Your task to perform on an android device: turn off translation in the chrome app Image 0: 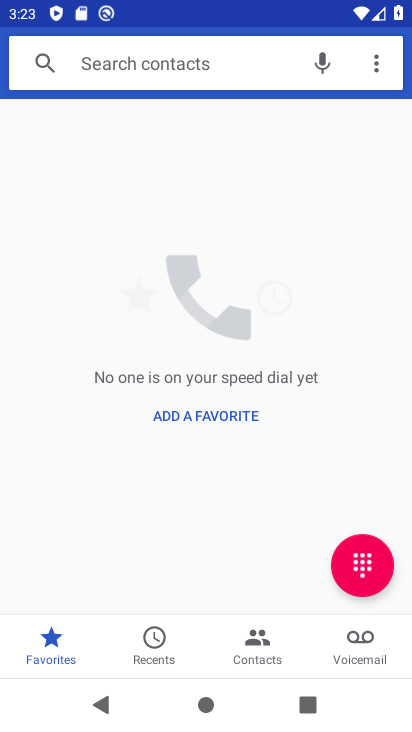
Step 0: press home button
Your task to perform on an android device: turn off translation in the chrome app Image 1: 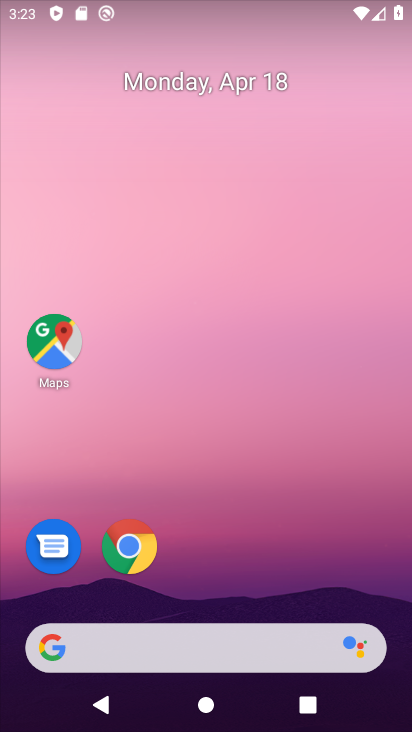
Step 1: click (139, 540)
Your task to perform on an android device: turn off translation in the chrome app Image 2: 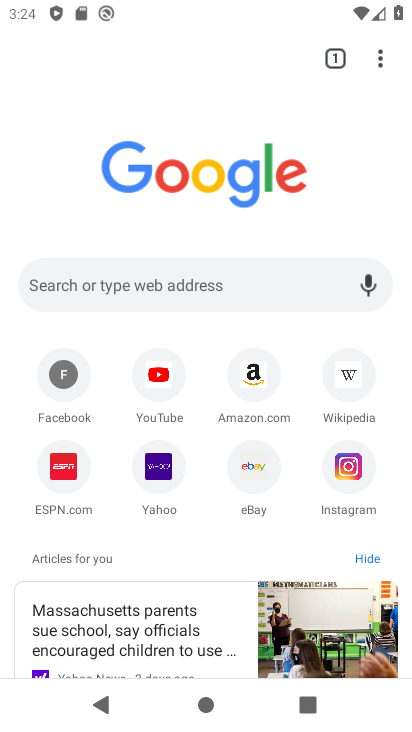
Step 2: click (376, 52)
Your task to perform on an android device: turn off translation in the chrome app Image 3: 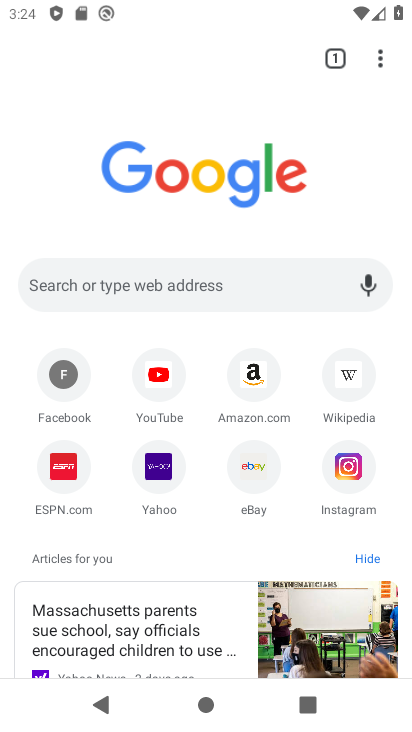
Step 3: drag from (379, 53) to (176, 494)
Your task to perform on an android device: turn off translation in the chrome app Image 4: 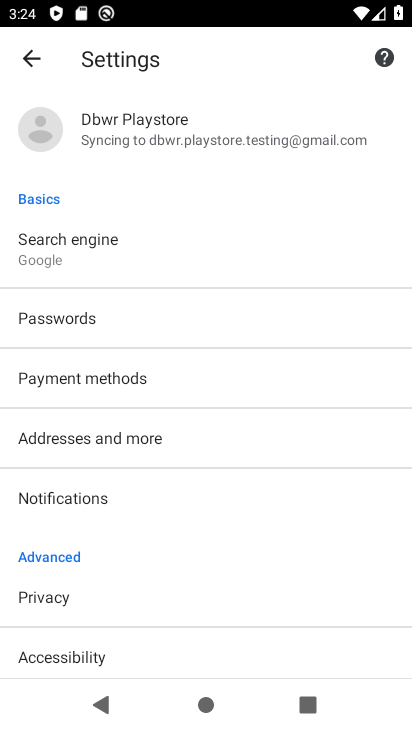
Step 4: drag from (170, 643) to (201, 263)
Your task to perform on an android device: turn off translation in the chrome app Image 5: 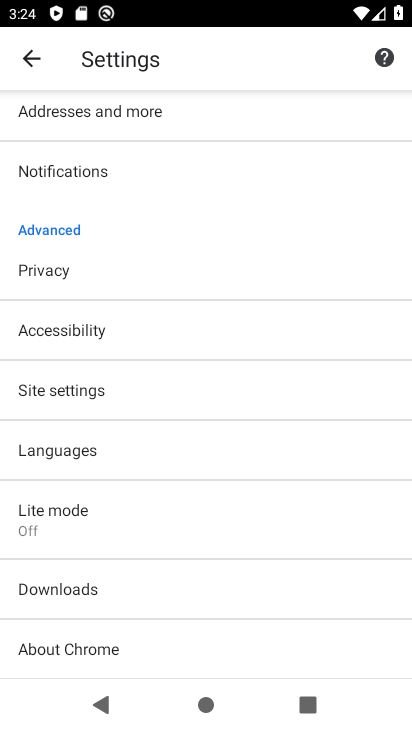
Step 5: click (87, 452)
Your task to perform on an android device: turn off translation in the chrome app Image 6: 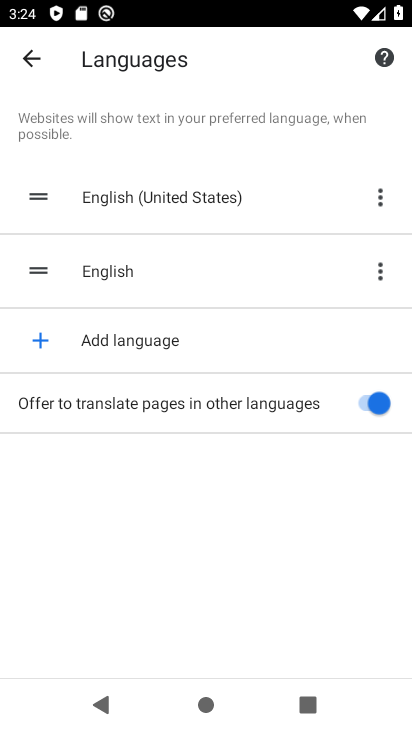
Step 6: click (337, 397)
Your task to perform on an android device: turn off translation in the chrome app Image 7: 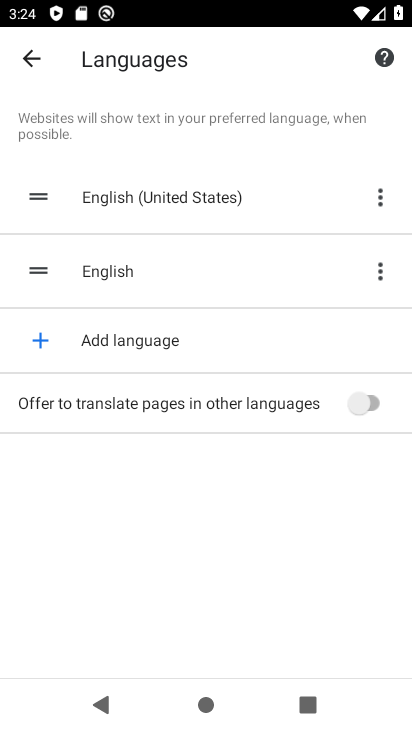
Step 7: task complete